Your task to perform on an android device: turn off smart reply in the gmail app Image 0: 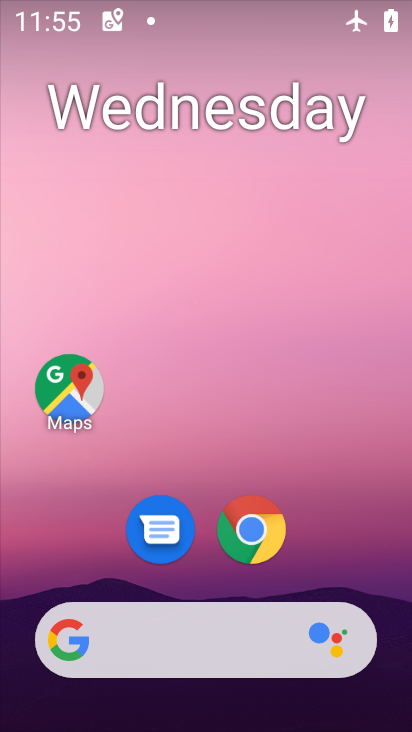
Step 0: drag from (393, 603) to (323, 117)
Your task to perform on an android device: turn off smart reply in the gmail app Image 1: 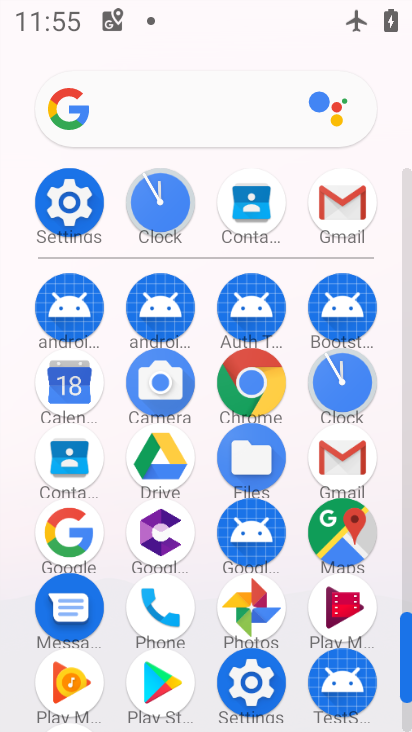
Step 1: click (407, 593)
Your task to perform on an android device: turn off smart reply in the gmail app Image 2: 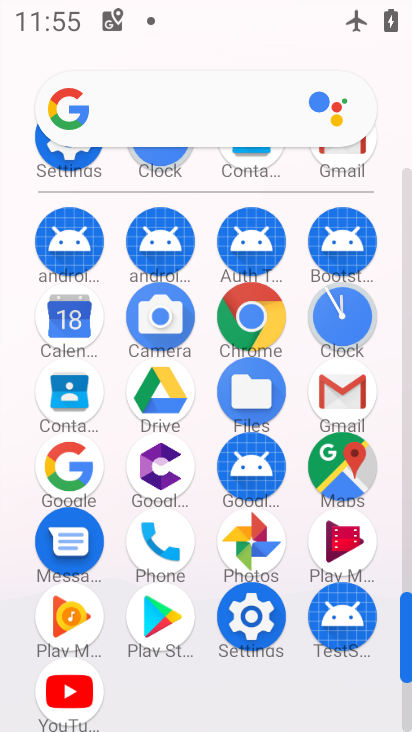
Step 2: click (341, 387)
Your task to perform on an android device: turn off smart reply in the gmail app Image 3: 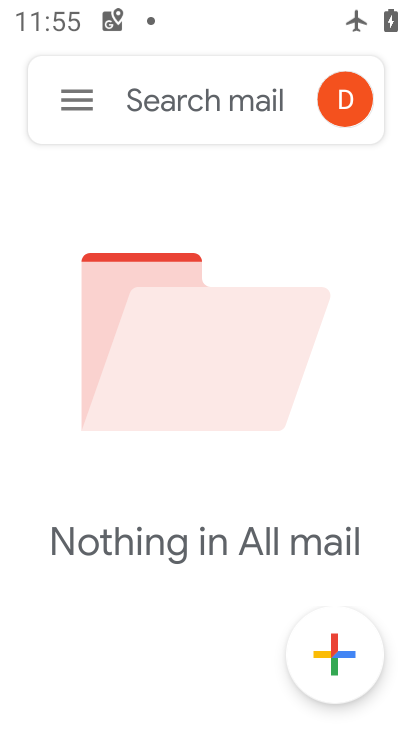
Step 3: click (76, 101)
Your task to perform on an android device: turn off smart reply in the gmail app Image 4: 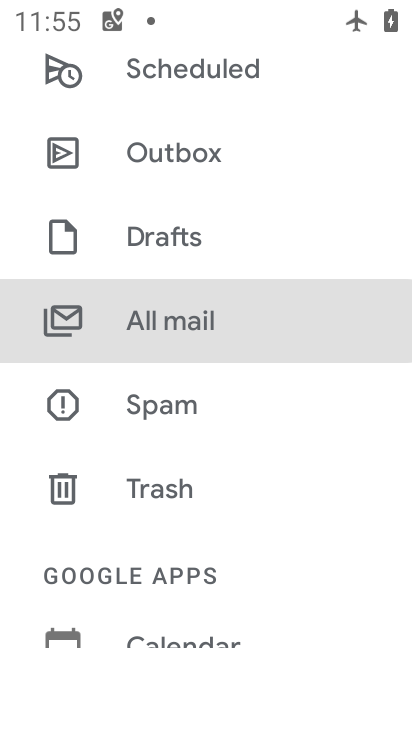
Step 4: drag from (254, 570) to (280, 134)
Your task to perform on an android device: turn off smart reply in the gmail app Image 5: 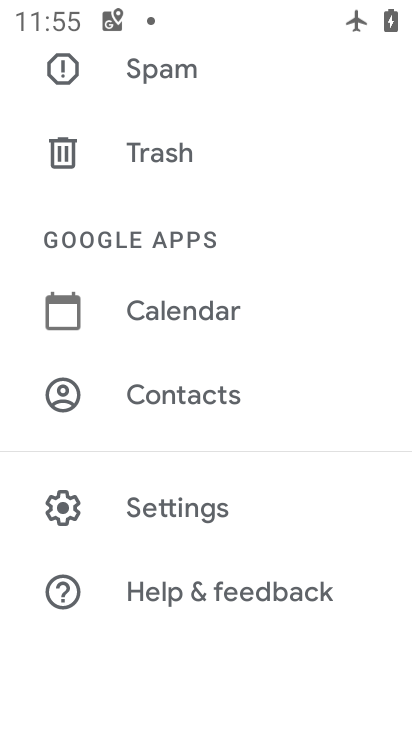
Step 5: click (173, 507)
Your task to perform on an android device: turn off smart reply in the gmail app Image 6: 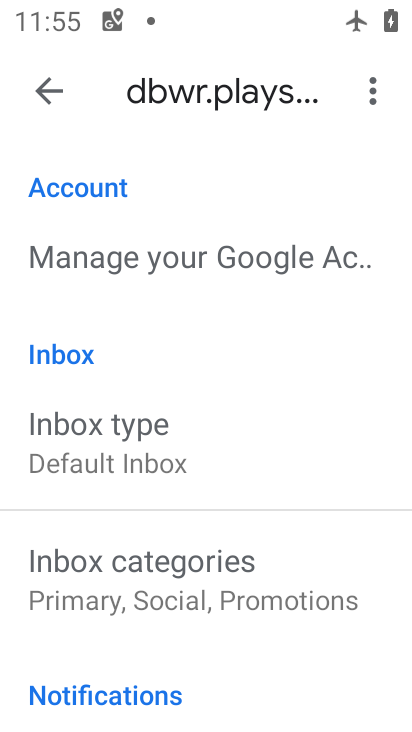
Step 6: drag from (269, 569) to (285, 186)
Your task to perform on an android device: turn off smart reply in the gmail app Image 7: 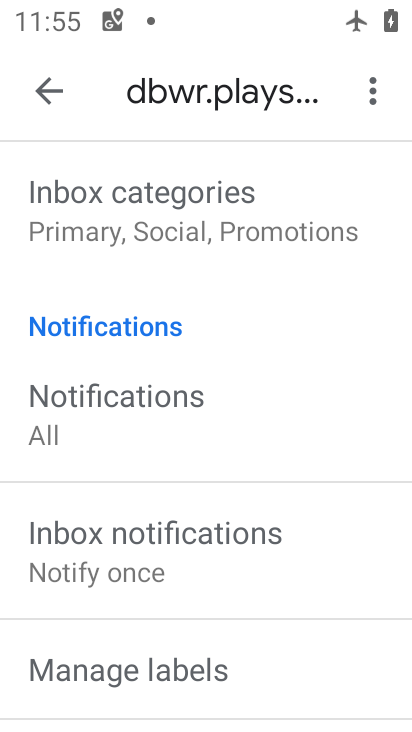
Step 7: drag from (309, 642) to (265, 116)
Your task to perform on an android device: turn off smart reply in the gmail app Image 8: 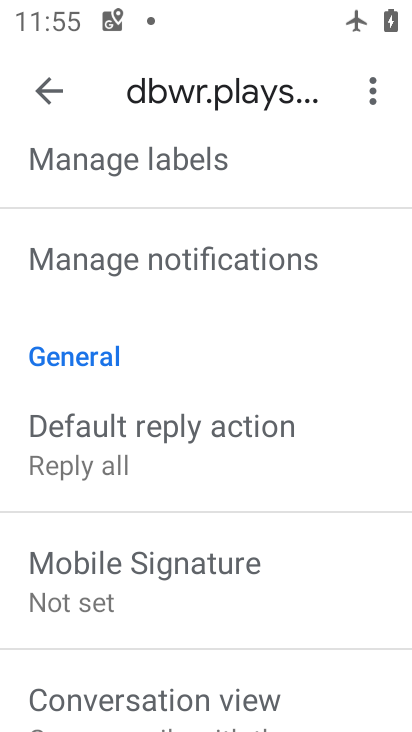
Step 8: drag from (285, 605) to (274, 195)
Your task to perform on an android device: turn off smart reply in the gmail app Image 9: 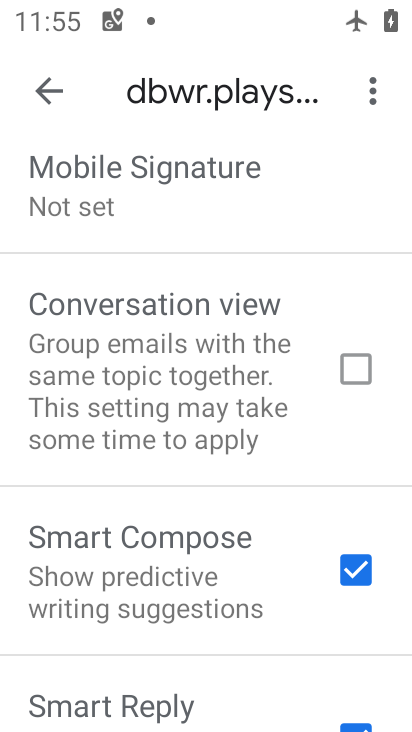
Step 9: drag from (282, 603) to (228, 222)
Your task to perform on an android device: turn off smart reply in the gmail app Image 10: 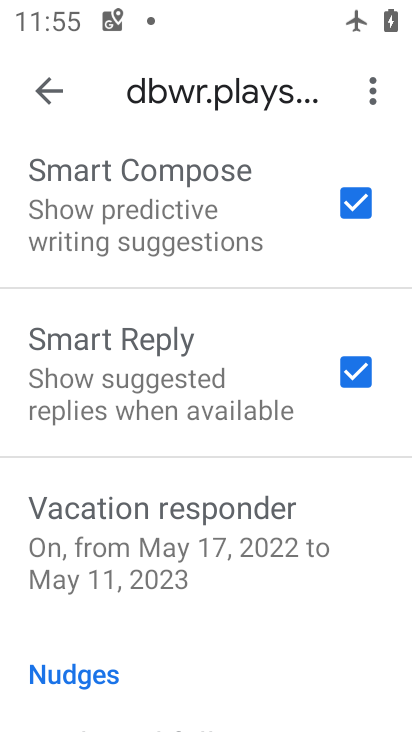
Step 10: click (357, 374)
Your task to perform on an android device: turn off smart reply in the gmail app Image 11: 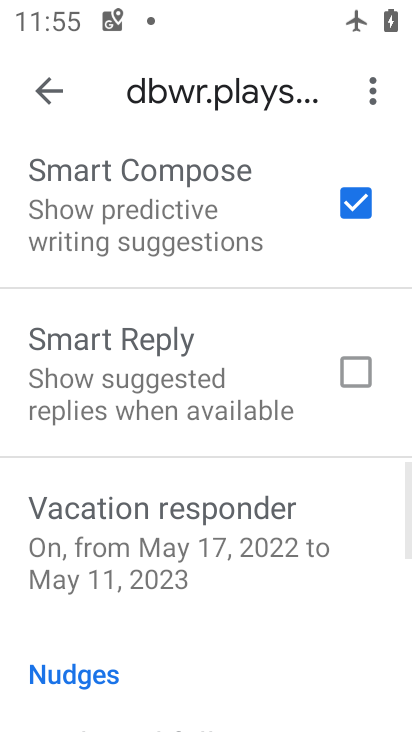
Step 11: task complete